Your task to perform on an android device: Open notification settings Image 0: 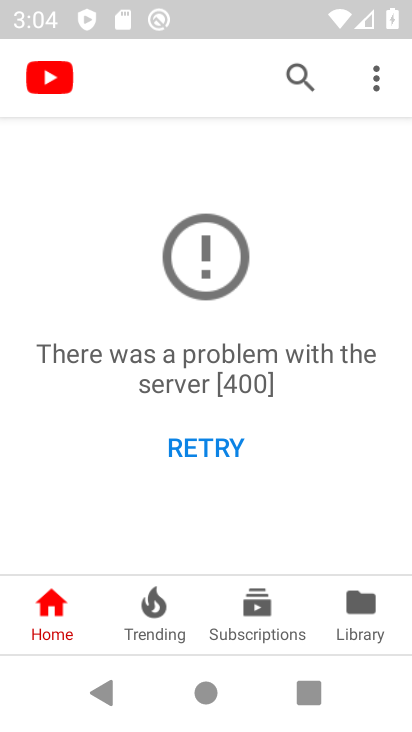
Step 0: press home button
Your task to perform on an android device: Open notification settings Image 1: 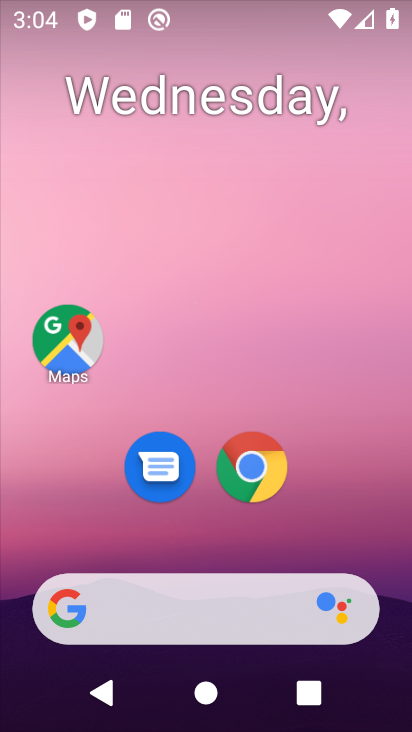
Step 1: drag from (323, 527) to (263, 16)
Your task to perform on an android device: Open notification settings Image 2: 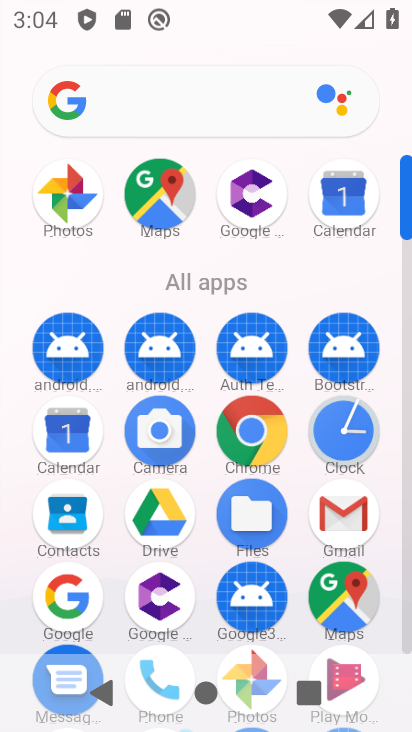
Step 2: drag from (281, 566) to (275, 109)
Your task to perform on an android device: Open notification settings Image 3: 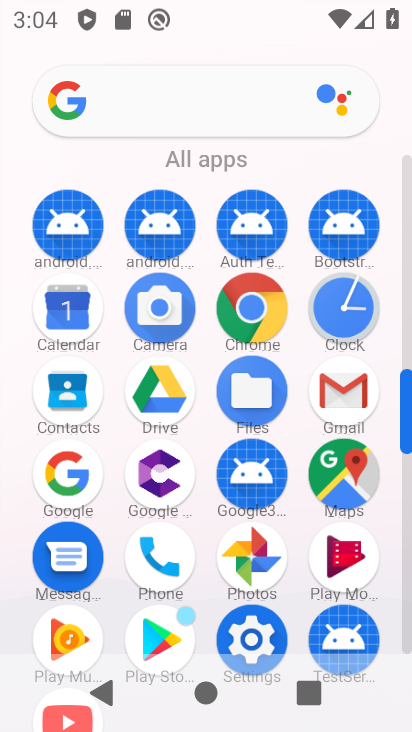
Step 3: click (250, 628)
Your task to perform on an android device: Open notification settings Image 4: 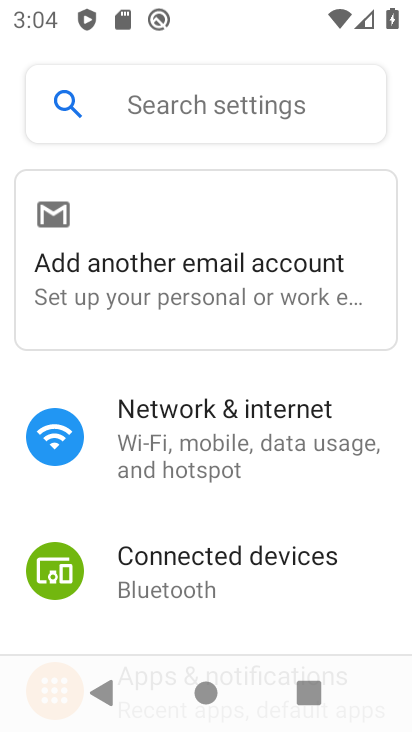
Step 4: drag from (307, 347) to (306, 264)
Your task to perform on an android device: Open notification settings Image 5: 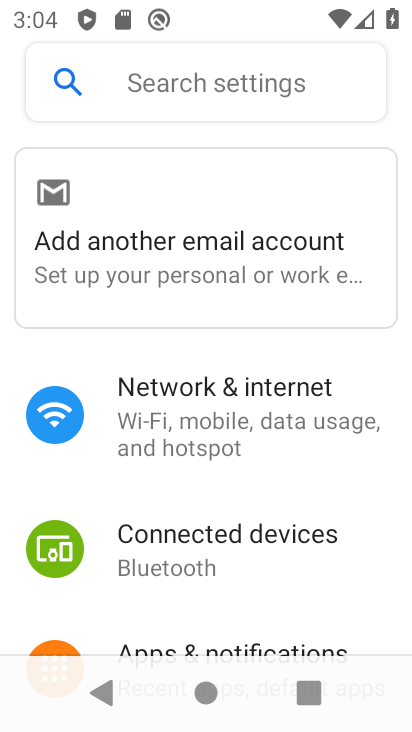
Step 5: drag from (267, 580) to (296, 186)
Your task to perform on an android device: Open notification settings Image 6: 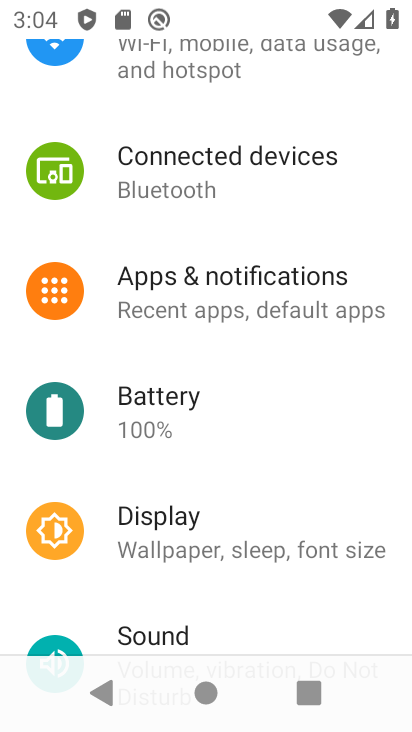
Step 6: click (256, 280)
Your task to perform on an android device: Open notification settings Image 7: 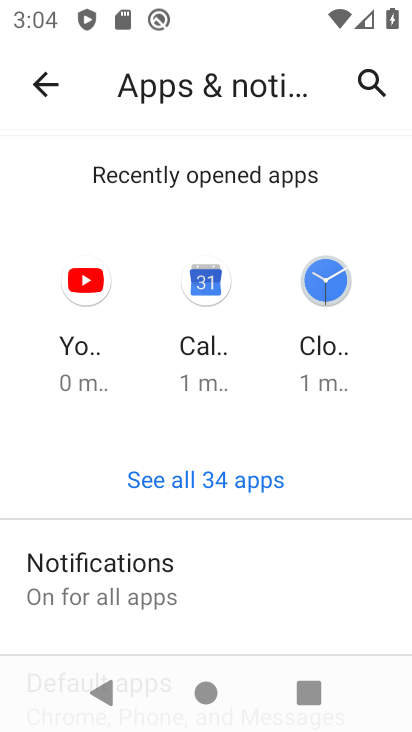
Step 7: task complete